Your task to perform on an android device: toggle show notifications on the lock screen Image 0: 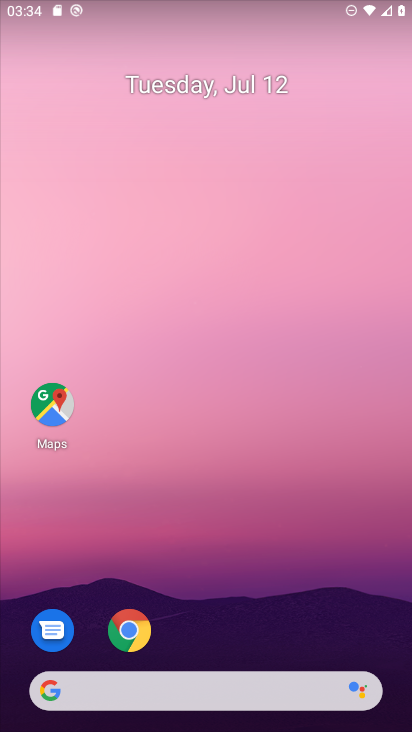
Step 0: drag from (374, 654) to (351, 247)
Your task to perform on an android device: toggle show notifications on the lock screen Image 1: 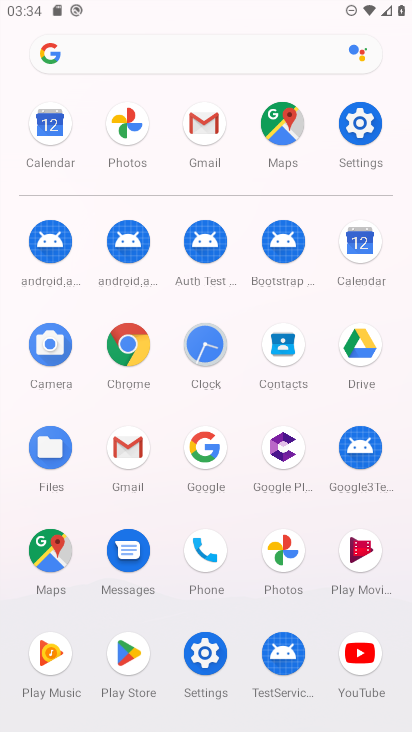
Step 1: click (202, 654)
Your task to perform on an android device: toggle show notifications on the lock screen Image 2: 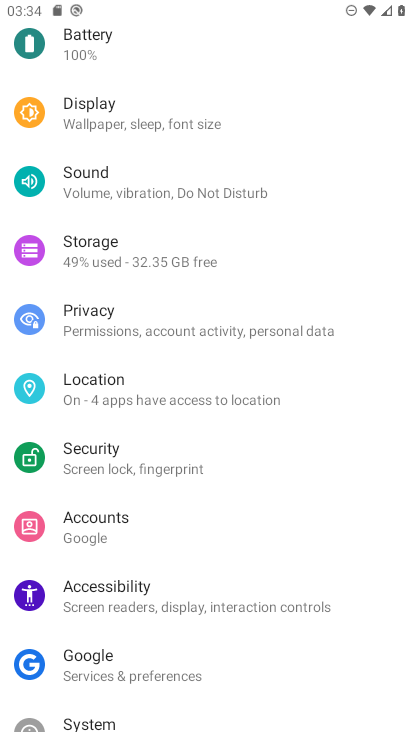
Step 2: drag from (313, 155) to (350, 362)
Your task to perform on an android device: toggle show notifications on the lock screen Image 3: 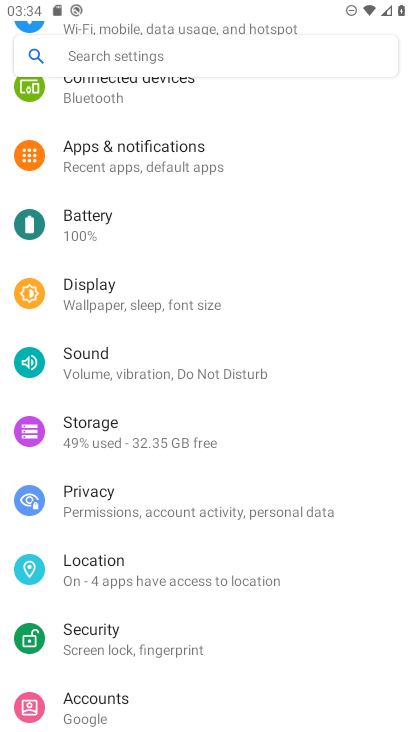
Step 3: click (120, 142)
Your task to perform on an android device: toggle show notifications on the lock screen Image 4: 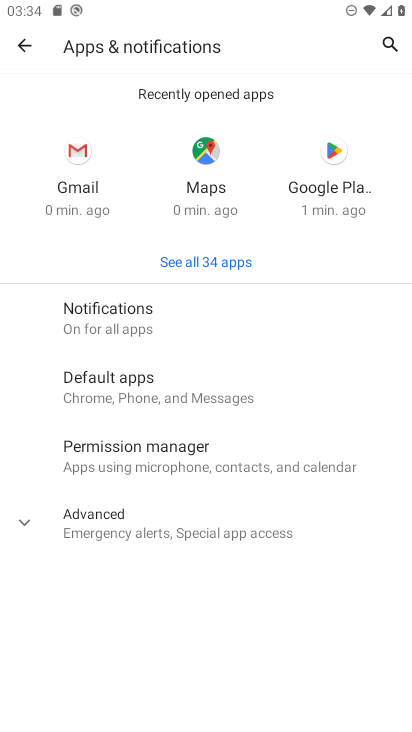
Step 4: click (94, 310)
Your task to perform on an android device: toggle show notifications on the lock screen Image 5: 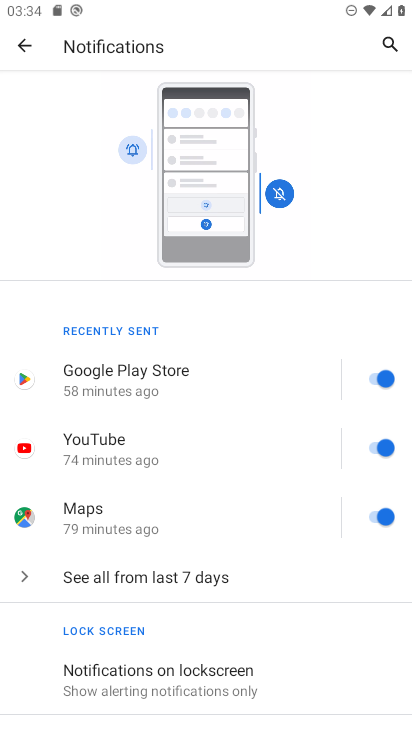
Step 5: click (184, 668)
Your task to perform on an android device: toggle show notifications on the lock screen Image 6: 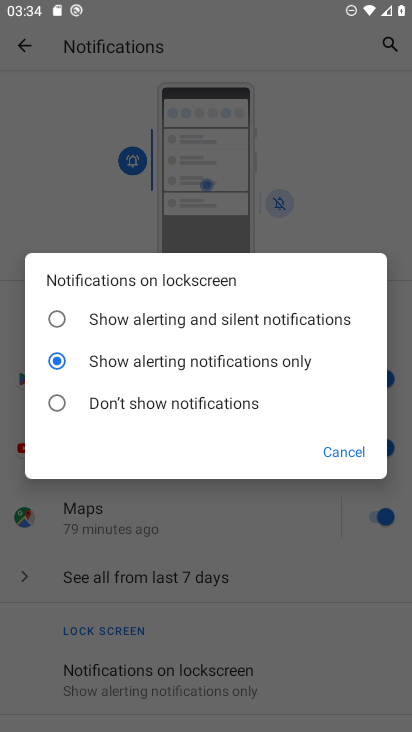
Step 6: click (59, 319)
Your task to perform on an android device: toggle show notifications on the lock screen Image 7: 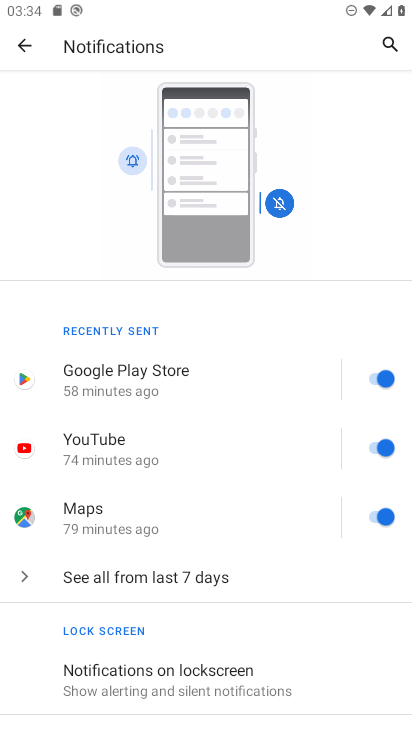
Step 7: task complete